Your task to perform on an android device: Search for sushi restaurants on Maps Image 0: 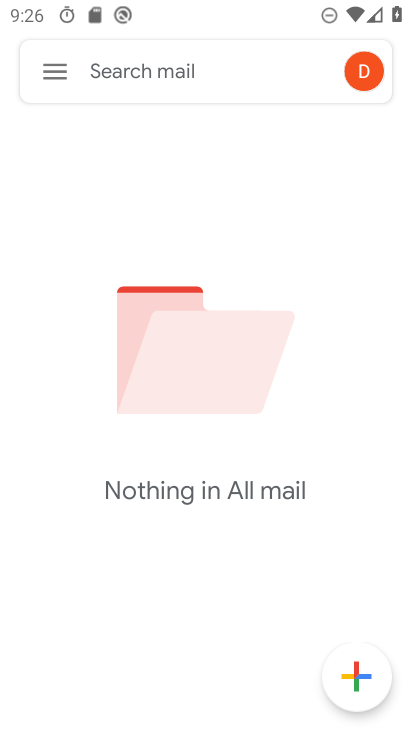
Step 0: press home button
Your task to perform on an android device: Search for sushi restaurants on Maps Image 1: 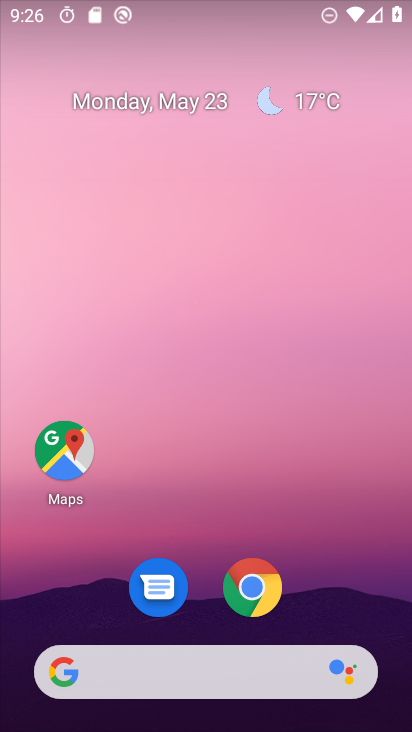
Step 1: click (68, 438)
Your task to perform on an android device: Search for sushi restaurants on Maps Image 2: 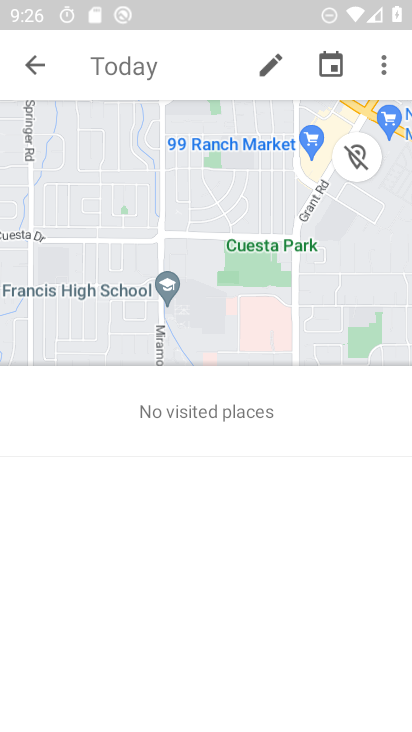
Step 2: click (32, 57)
Your task to perform on an android device: Search for sushi restaurants on Maps Image 3: 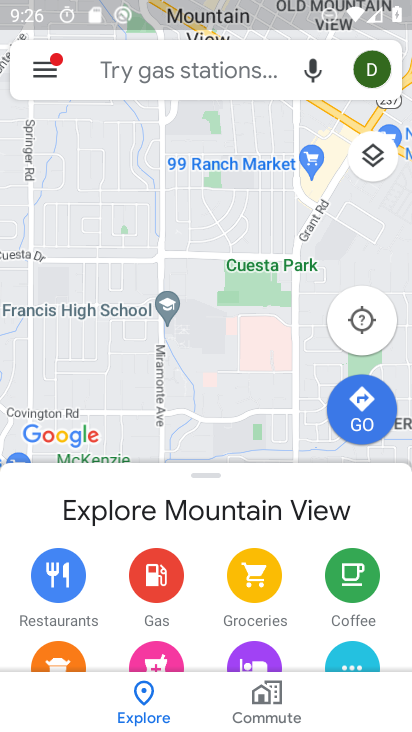
Step 3: click (168, 68)
Your task to perform on an android device: Search for sushi restaurants on Maps Image 4: 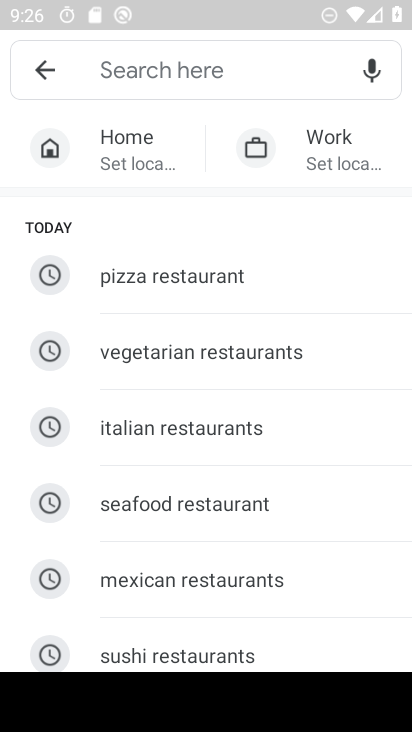
Step 4: click (159, 657)
Your task to perform on an android device: Search for sushi restaurants on Maps Image 5: 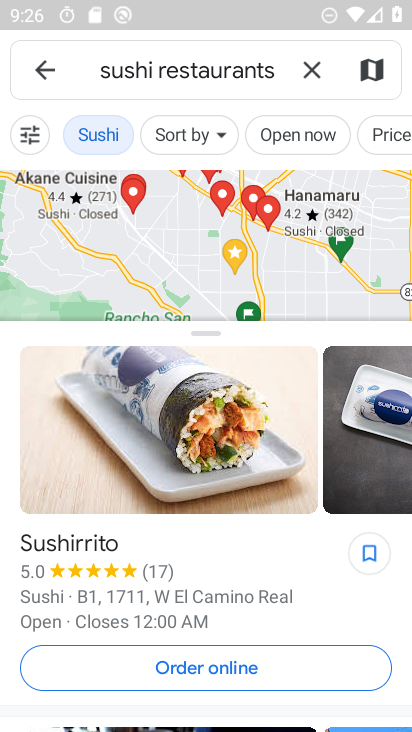
Step 5: task complete